Your task to perform on an android device: turn off airplane mode Image 0: 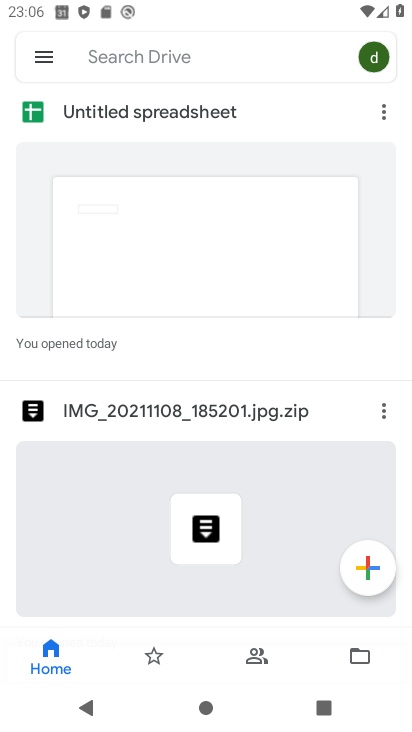
Step 0: press back button
Your task to perform on an android device: turn off airplane mode Image 1: 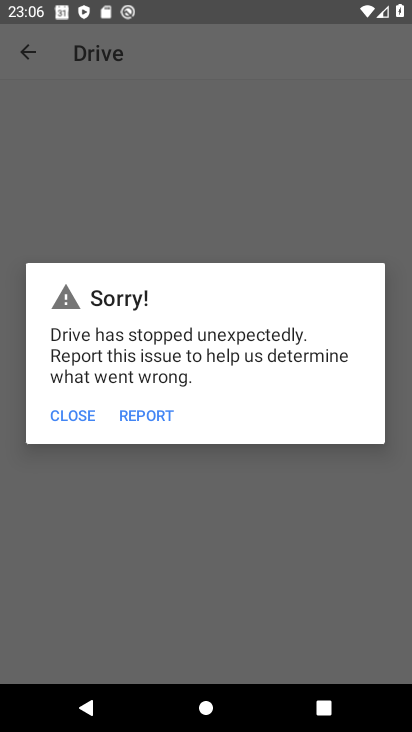
Step 1: press back button
Your task to perform on an android device: turn off airplane mode Image 2: 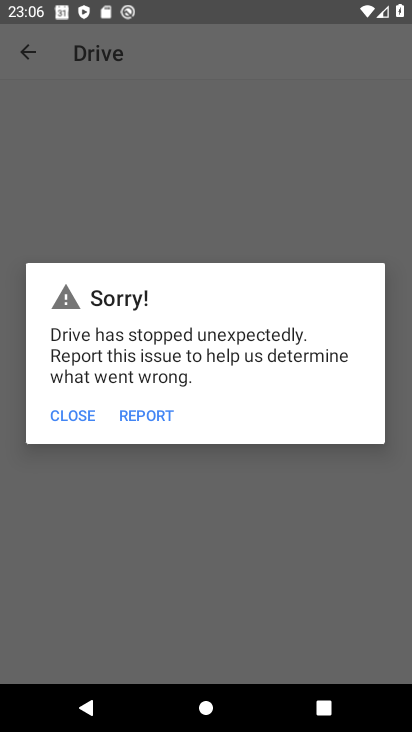
Step 2: press home button
Your task to perform on an android device: turn off airplane mode Image 3: 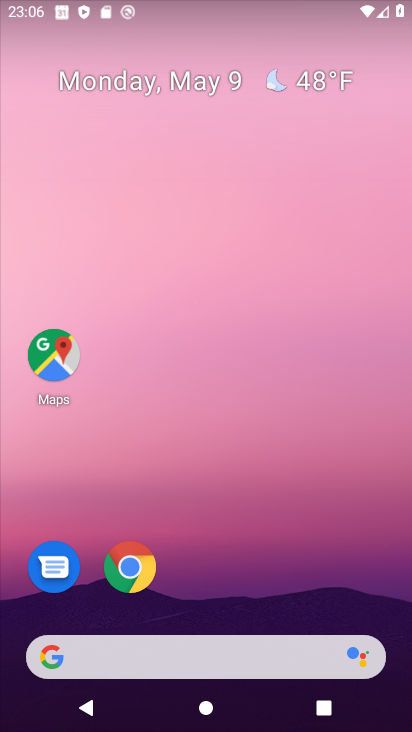
Step 3: drag from (261, 551) to (224, 57)
Your task to perform on an android device: turn off airplane mode Image 4: 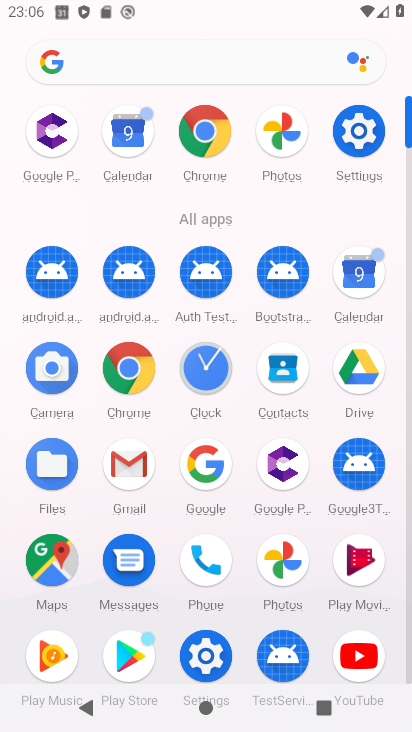
Step 4: click (358, 130)
Your task to perform on an android device: turn off airplane mode Image 5: 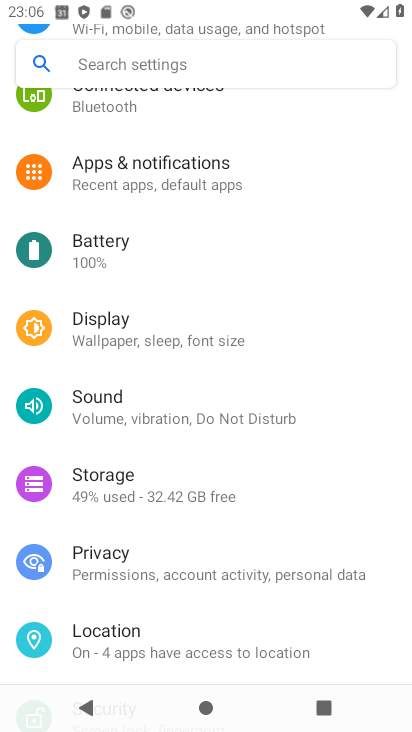
Step 5: drag from (241, 202) to (265, 295)
Your task to perform on an android device: turn off airplane mode Image 6: 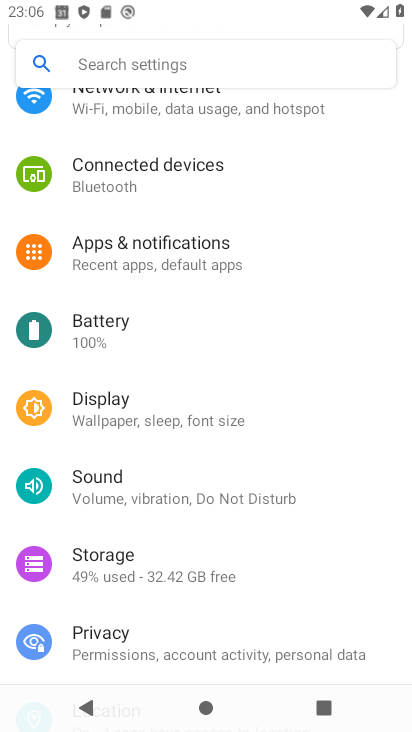
Step 6: drag from (259, 168) to (303, 290)
Your task to perform on an android device: turn off airplane mode Image 7: 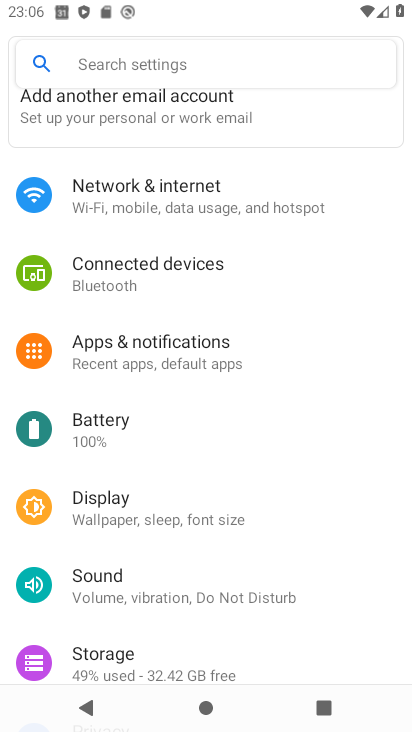
Step 7: click (193, 198)
Your task to perform on an android device: turn off airplane mode Image 8: 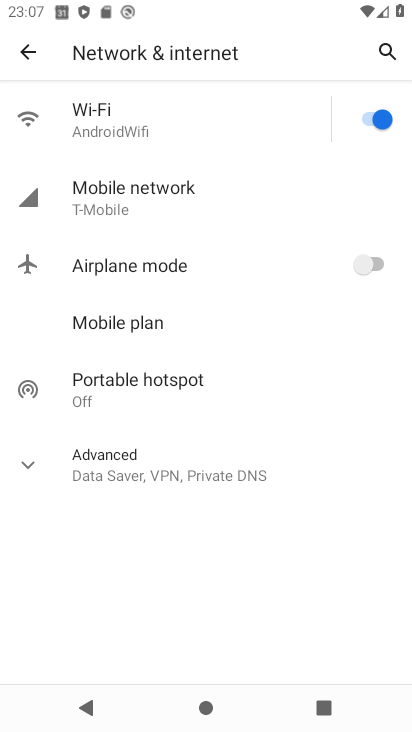
Step 8: task complete